Your task to perform on an android device: turn off wifi Image 0: 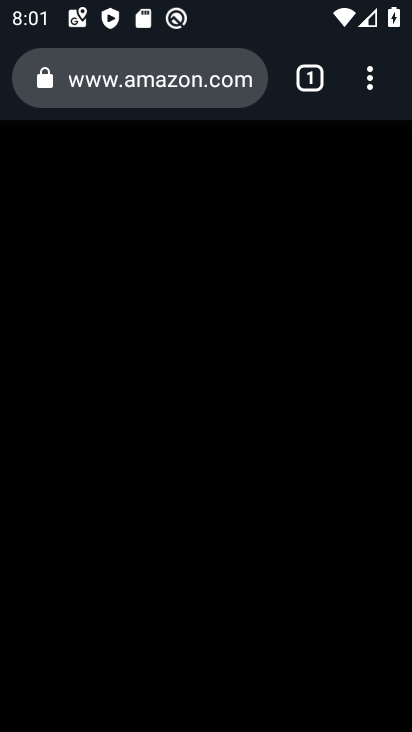
Step 0: press home button
Your task to perform on an android device: turn off wifi Image 1: 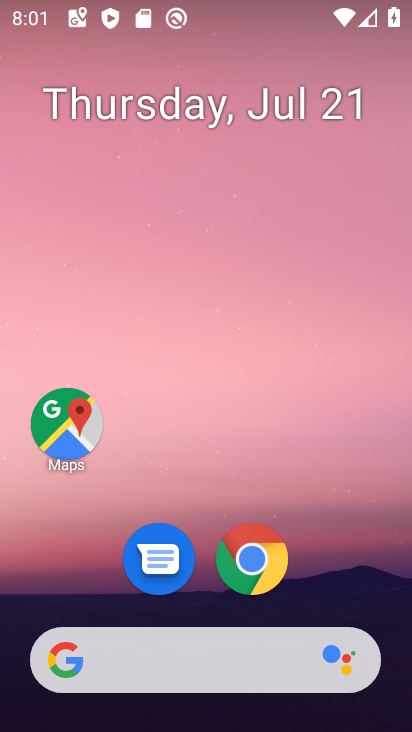
Step 1: drag from (189, 673) to (275, 87)
Your task to perform on an android device: turn off wifi Image 2: 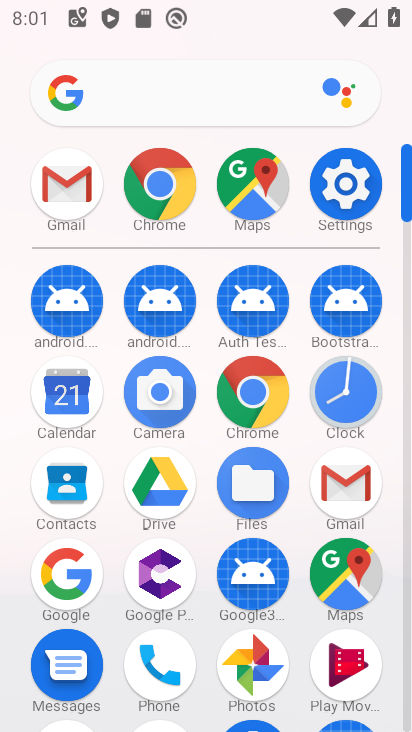
Step 2: click (350, 221)
Your task to perform on an android device: turn off wifi Image 3: 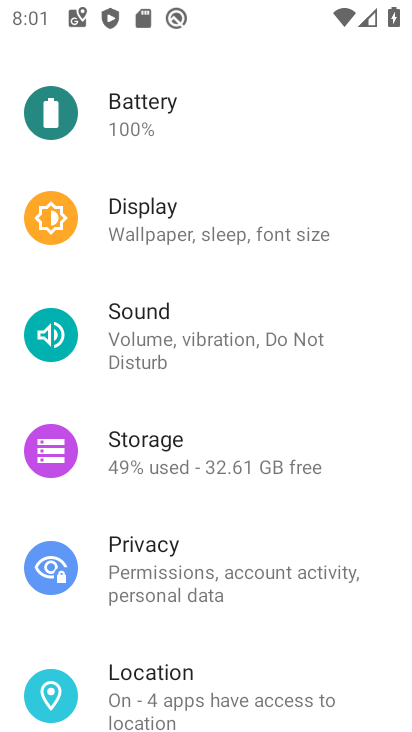
Step 3: drag from (183, 267) to (152, 612)
Your task to perform on an android device: turn off wifi Image 4: 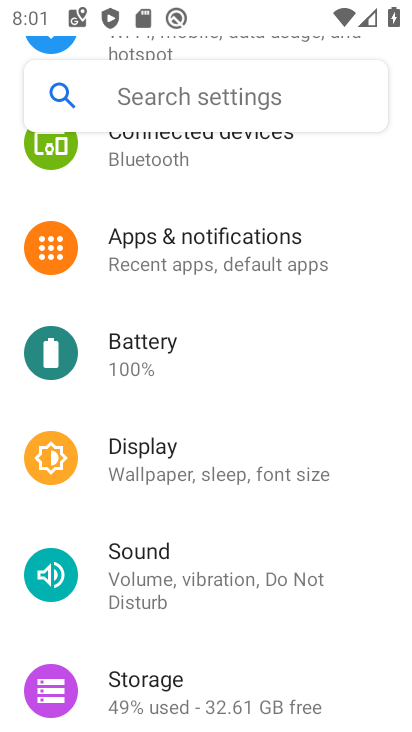
Step 4: drag from (166, 321) to (147, 678)
Your task to perform on an android device: turn off wifi Image 5: 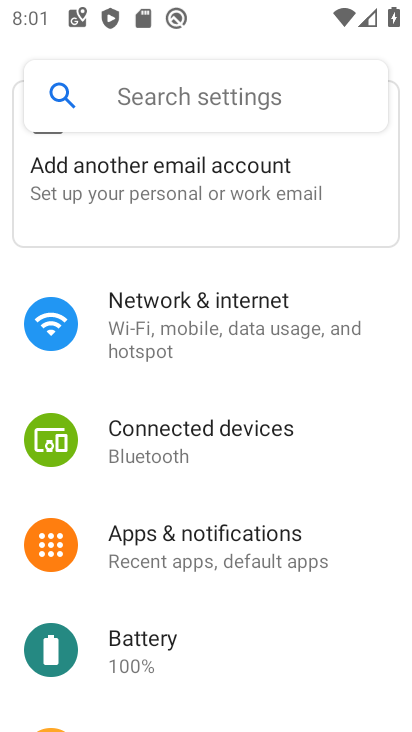
Step 5: click (179, 327)
Your task to perform on an android device: turn off wifi Image 6: 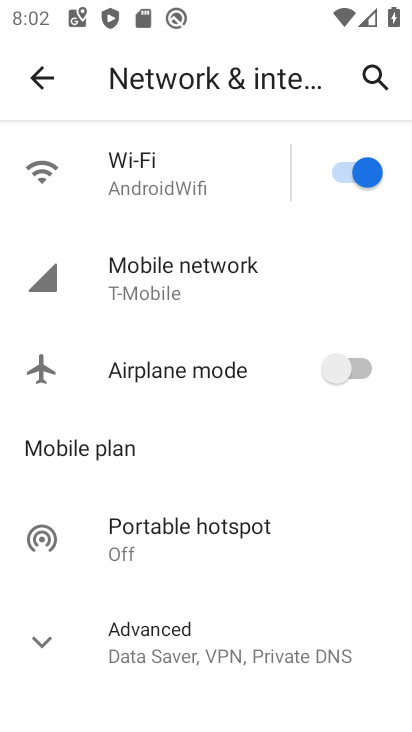
Step 6: click (342, 163)
Your task to perform on an android device: turn off wifi Image 7: 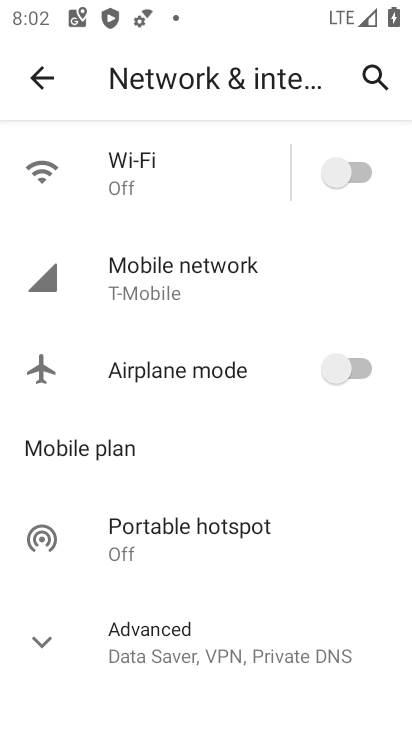
Step 7: task complete